Your task to perform on an android device: What is the recent news? Image 0: 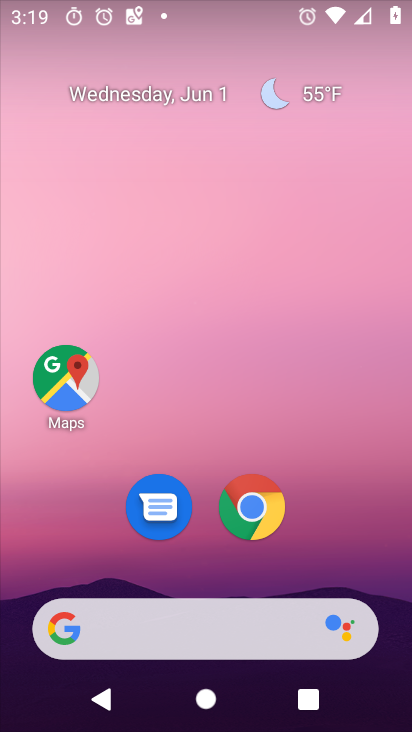
Step 0: click (105, 637)
Your task to perform on an android device: What is the recent news? Image 1: 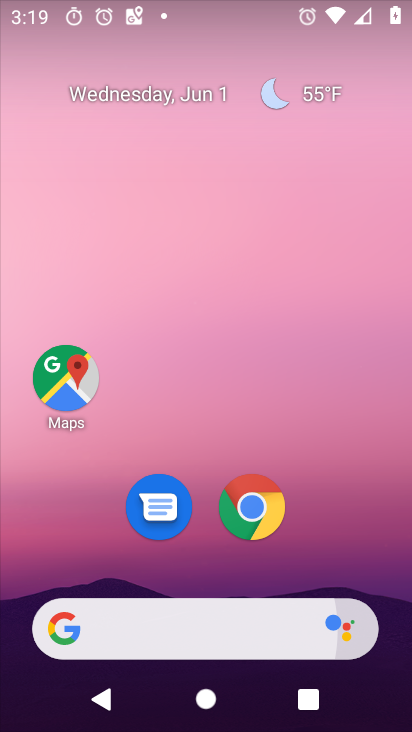
Step 1: click (95, 631)
Your task to perform on an android device: What is the recent news? Image 2: 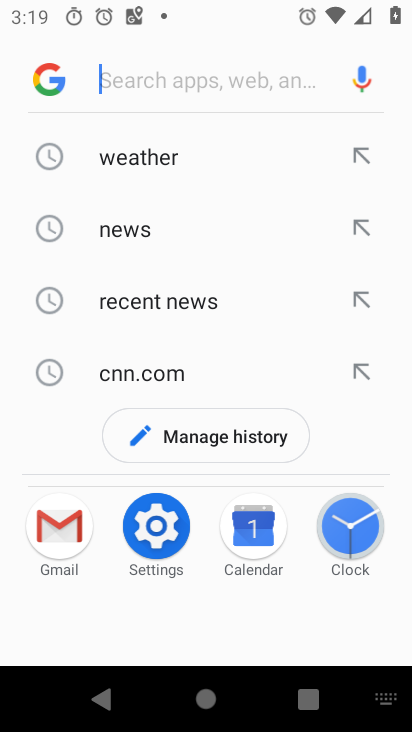
Step 2: click (187, 307)
Your task to perform on an android device: What is the recent news? Image 3: 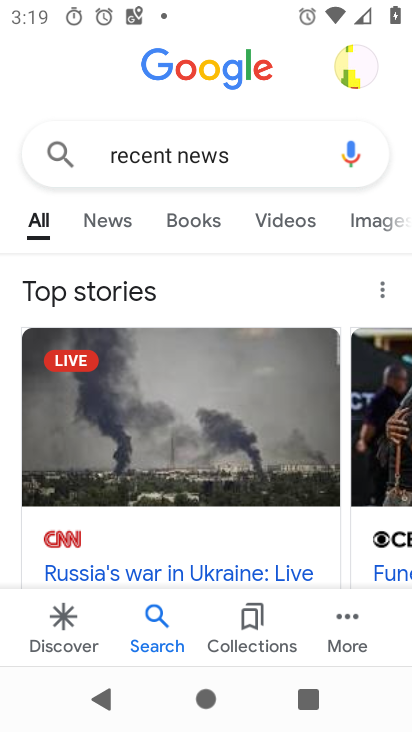
Step 3: drag from (194, 469) to (172, 216)
Your task to perform on an android device: What is the recent news? Image 4: 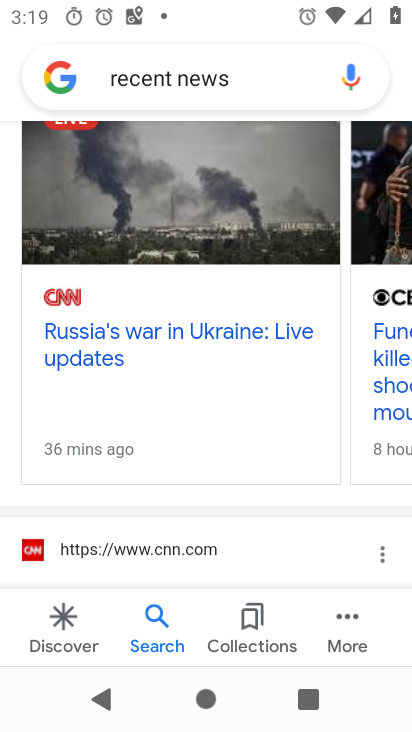
Step 4: click (105, 225)
Your task to perform on an android device: What is the recent news? Image 5: 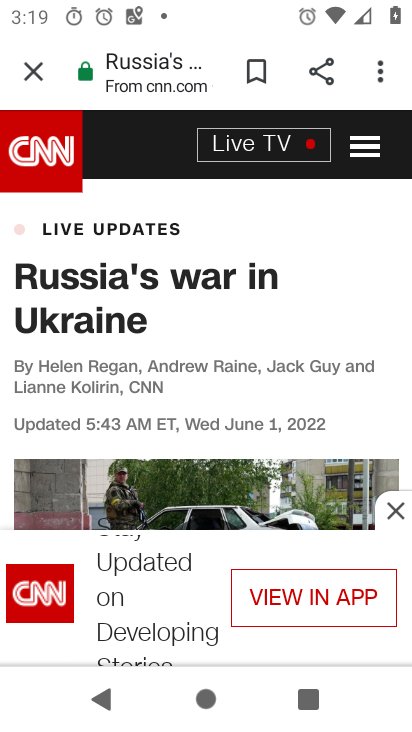
Step 5: task complete